Your task to perform on an android device: see sites visited before in the chrome app Image 0: 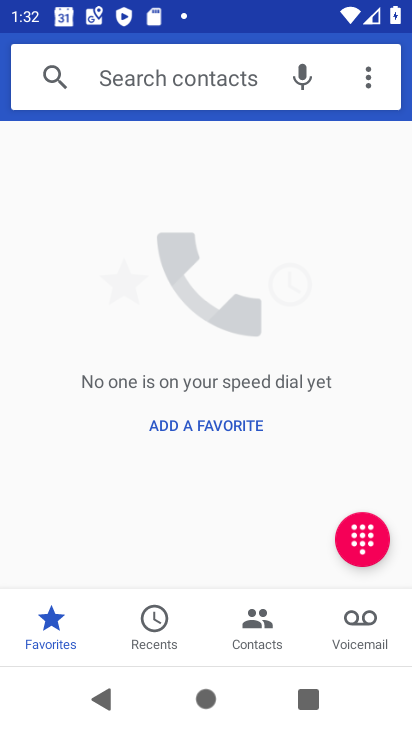
Step 0: press home button
Your task to perform on an android device: see sites visited before in the chrome app Image 1: 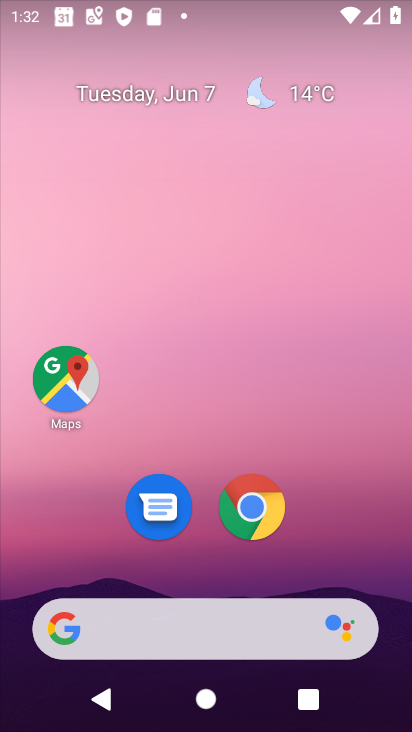
Step 1: click (255, 522)
Your task to perform on an android device: see sites visited before in the chrome app Image 2: 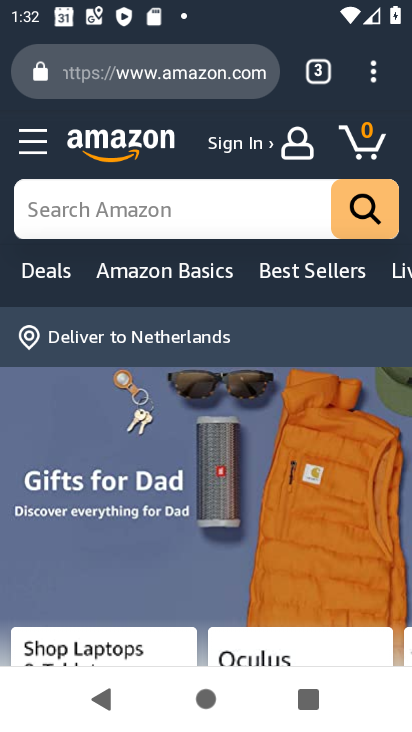
Step 2: click (372, 75)
Your task to perform on an android device: see sites visited before in the chrome app Image 3: 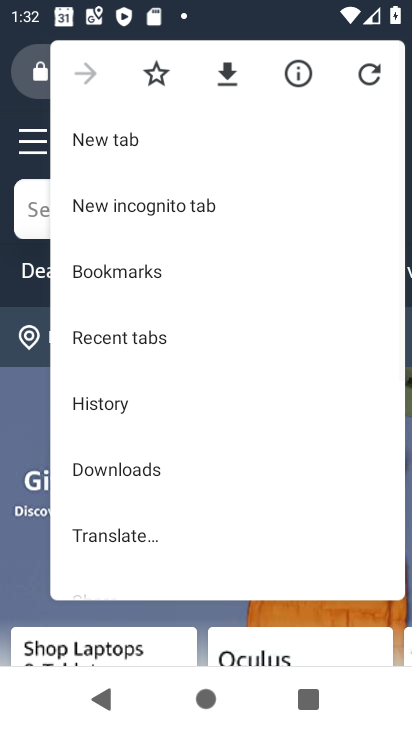
Step 3: drag from (192, 504) to (220, 88)
Your task to perform on an android device: see sites visited before in the chrome app Image 4: 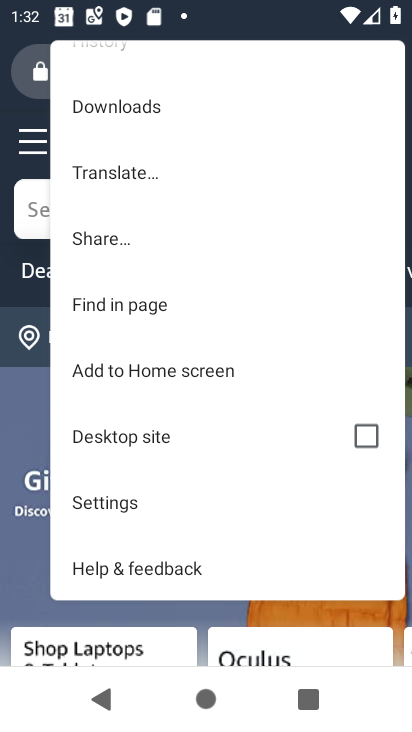
Step 4: drag from (255, 145) to (260, 399)
Your task to perform on an android device: see sites visited before in the chrome app Image 5: 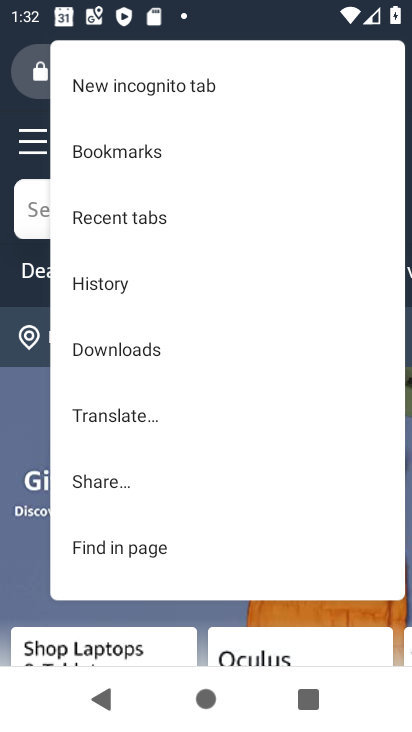
Step 5: click (107, 283)
Your task to perform on an android device: see sites visited before in the chrome app Image 6: 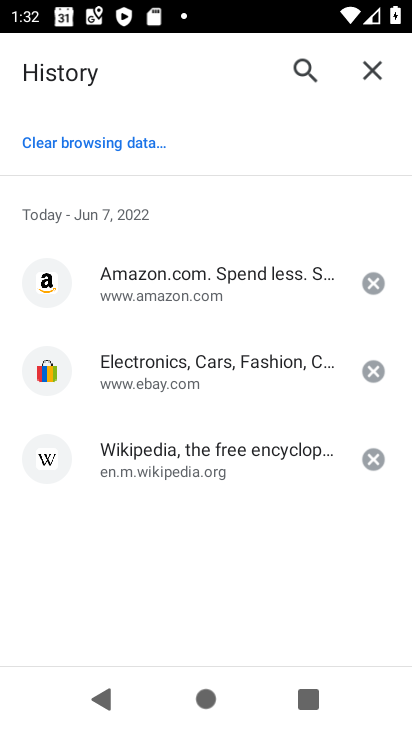
Step 6: task complete